Your task to perform on an android device: turn on sleep mode Image 0: 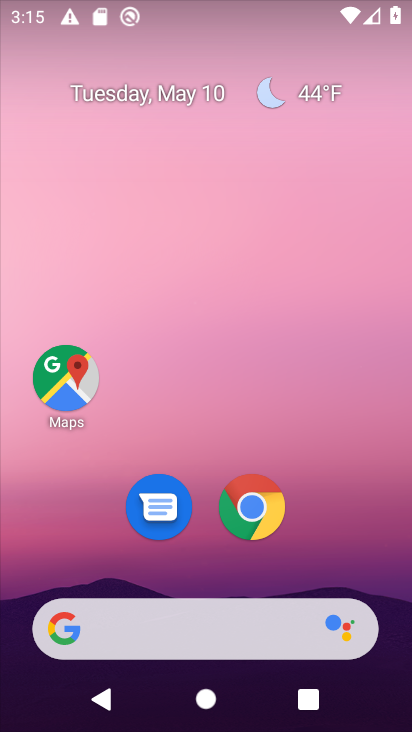
Step 0: drag from (166, 604) to (298, 81)
Your task to perform on an android device: turn on sleep mode Image 1: 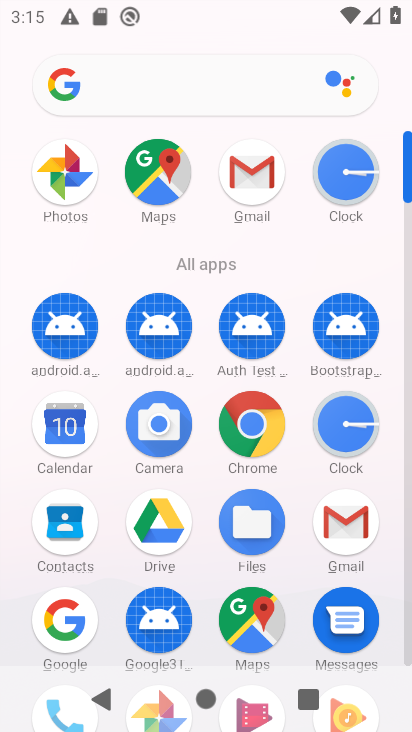
Step 1: drag from (132, 613) to (194, 372)
Your task to perform on an android device: turn on sleep mode Image 2: 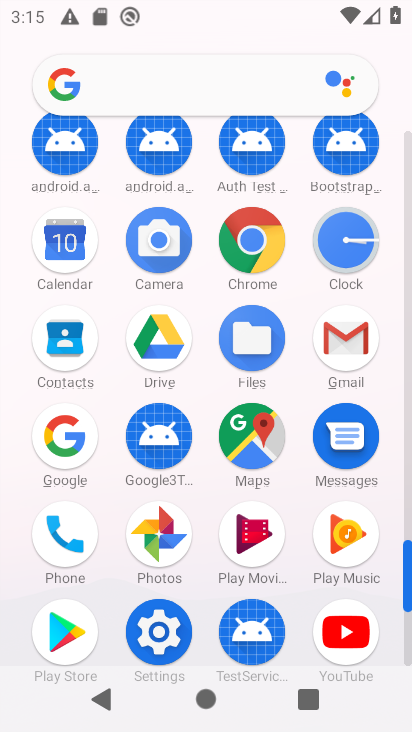
Step 2: click (153, 638)
Your task to perform on an android device: turn on sleep mode Image 3: 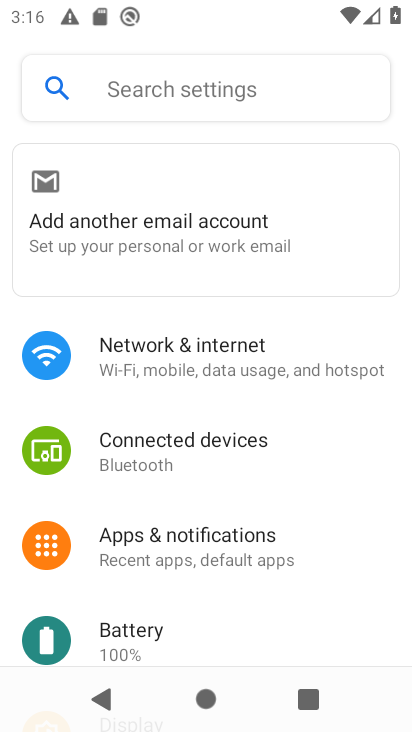
Step 3: drag from (159, 590) to (259, 272)
Your task to perform on an android device: turn on sleep mode Image 4: 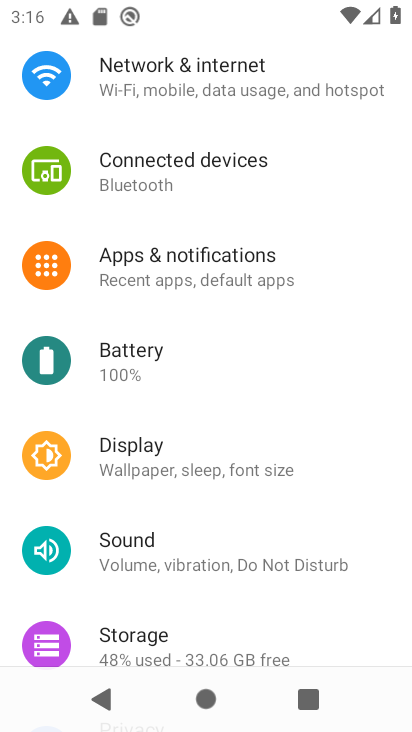
Step 4: click (177, 459)
Your task to perform on an android device: turn on sleep mode Image 5: 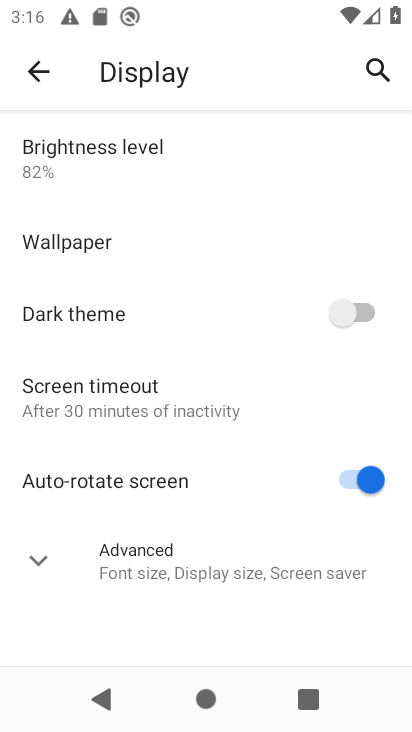
Step 5: click (159, 565)
Your task to perform on an android device: turn on sleep mode Image 6: 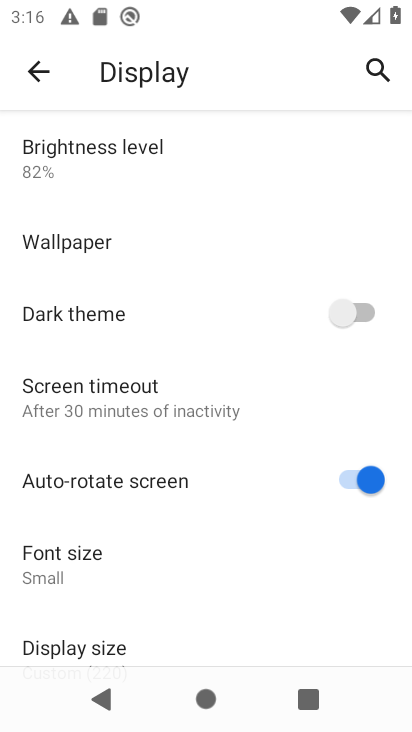
Step 6: task complete